Your task to perform on an android device: delete a single message in the gmail app Image 0: 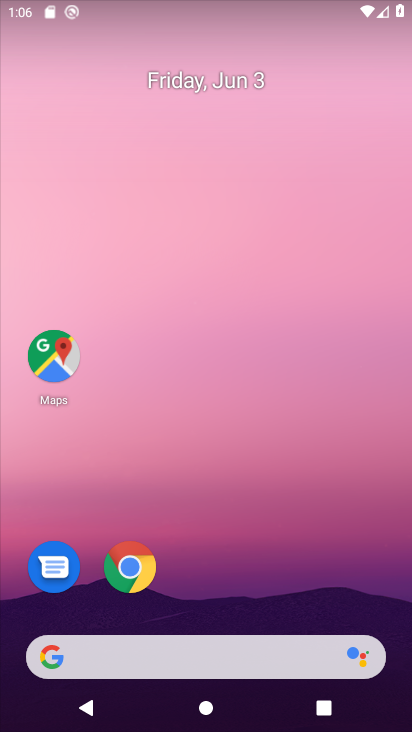
Step 0: drag from (248, 622) to (282, 273)
Your task to perform on an android device: delete a single message in the gmail app Image 1: 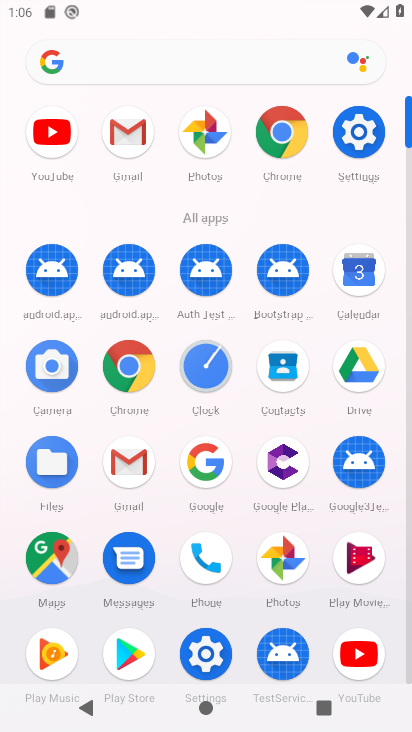
Step 1: click (130, 460)
Your task to perform on an android device: delete a single message in the gmail app Image 2: 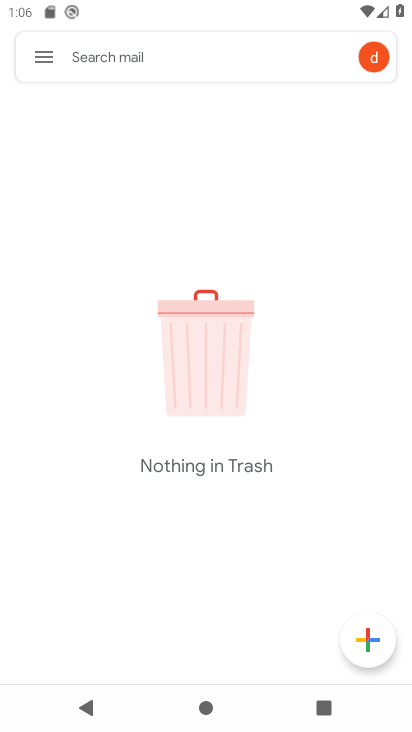
Step 2: click (41, 55)
Your task to perform on an android device: delete a single message in the gmail app Image 3: 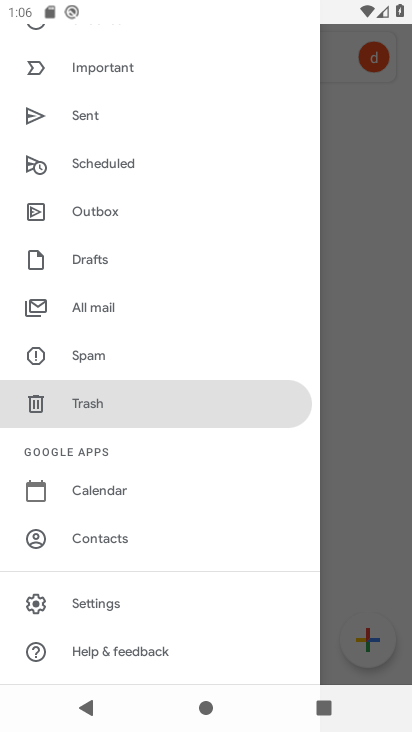
Step 3: click (107, 309)
Your task to perform on an android device: delete a single message in the gmail app Image 4: 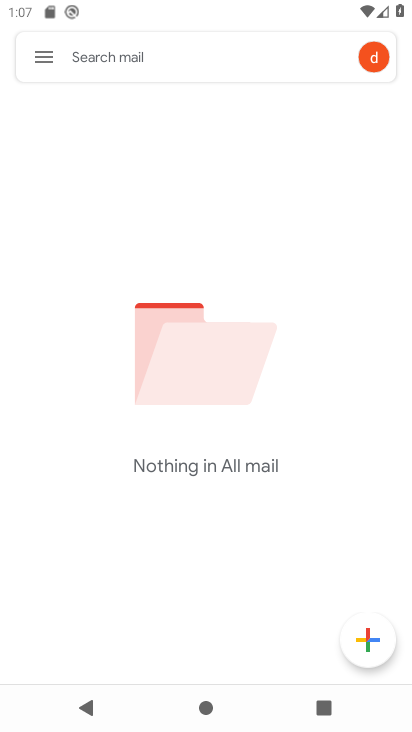
Step 4: task complete